Your task to perform on an android device: Go to notification settings Image 0: 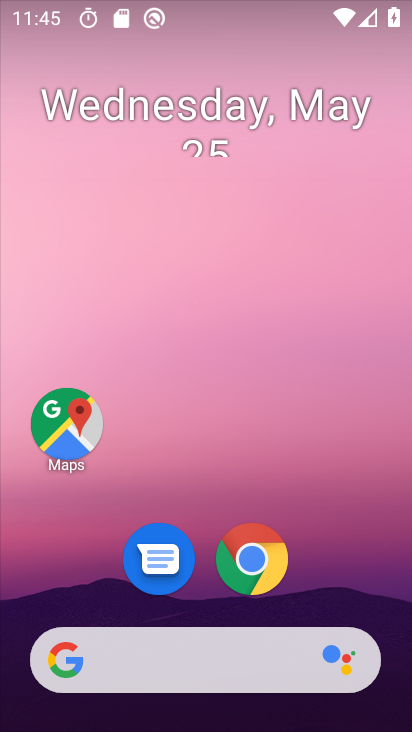
Step 0: drag from (332, 563) to (292, 200)
Your task to perform on an android device: Go to notification settings Image 1: 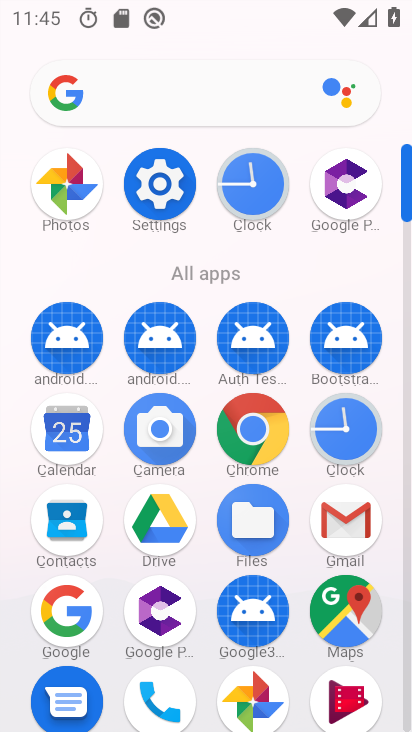
Step 1: click (160, 201)
Your task to perform on an android device: Go to notification settings Image 2: 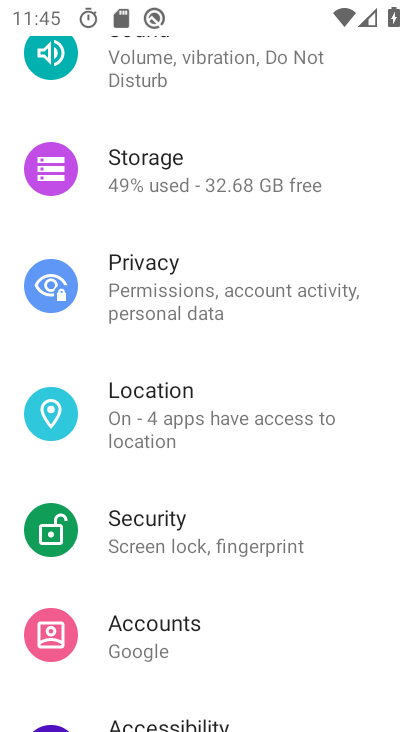
Step 2: drag from (233, 211) to (270, 540)
Your task to perform on an android device: Go to notification settings Image 3: 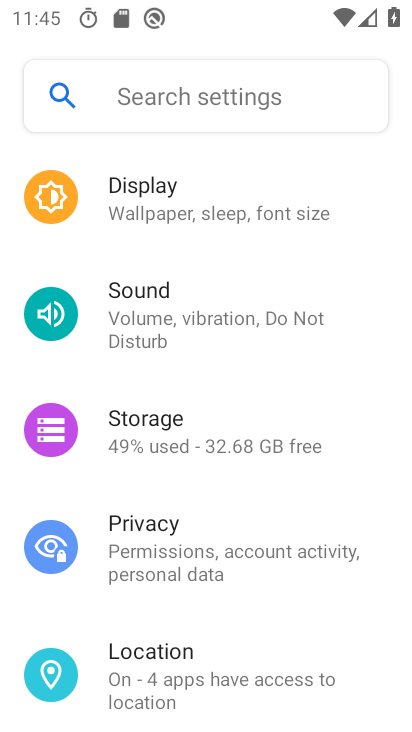
Step 3: drag from (240, 246) to (258, 634)
Your task to perform on an android device: Go to notification settings Image 4: 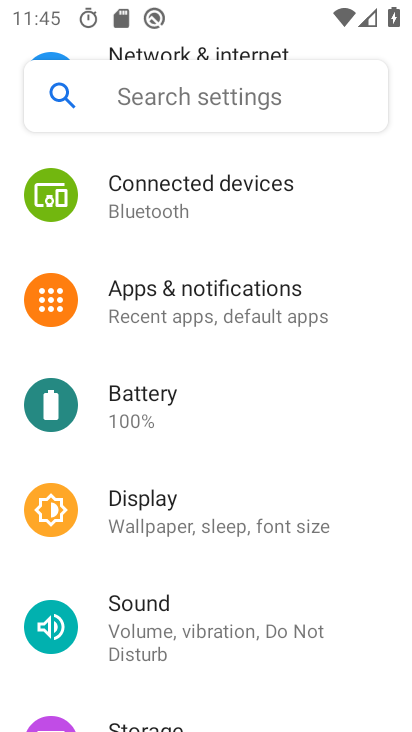
Step 4: click (246, 304)
Your task to perform on an android device: Go to notification settings Image 5: 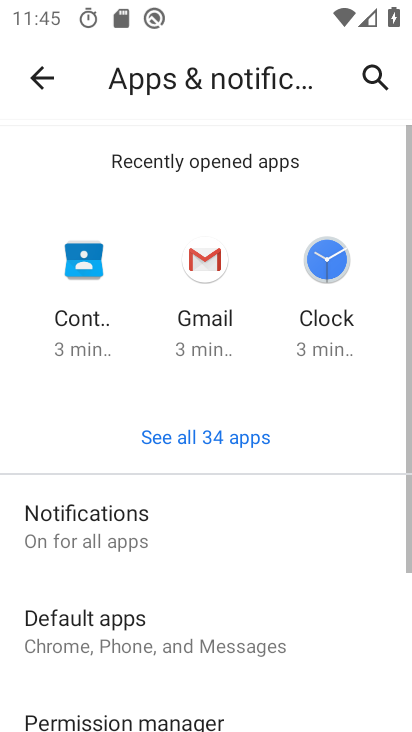
Step 5: click (86, 529)
Your task to perform on an android device: Go to notification settings Image 6: 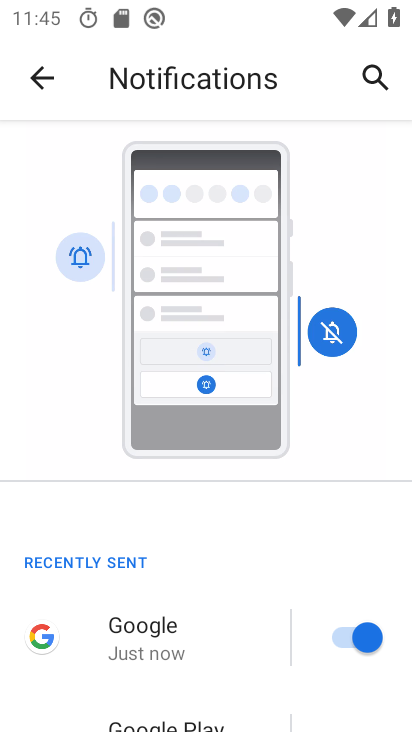
Step 6: task complete